Your task to perform on an android device: open app "Google Maps" Image 0: 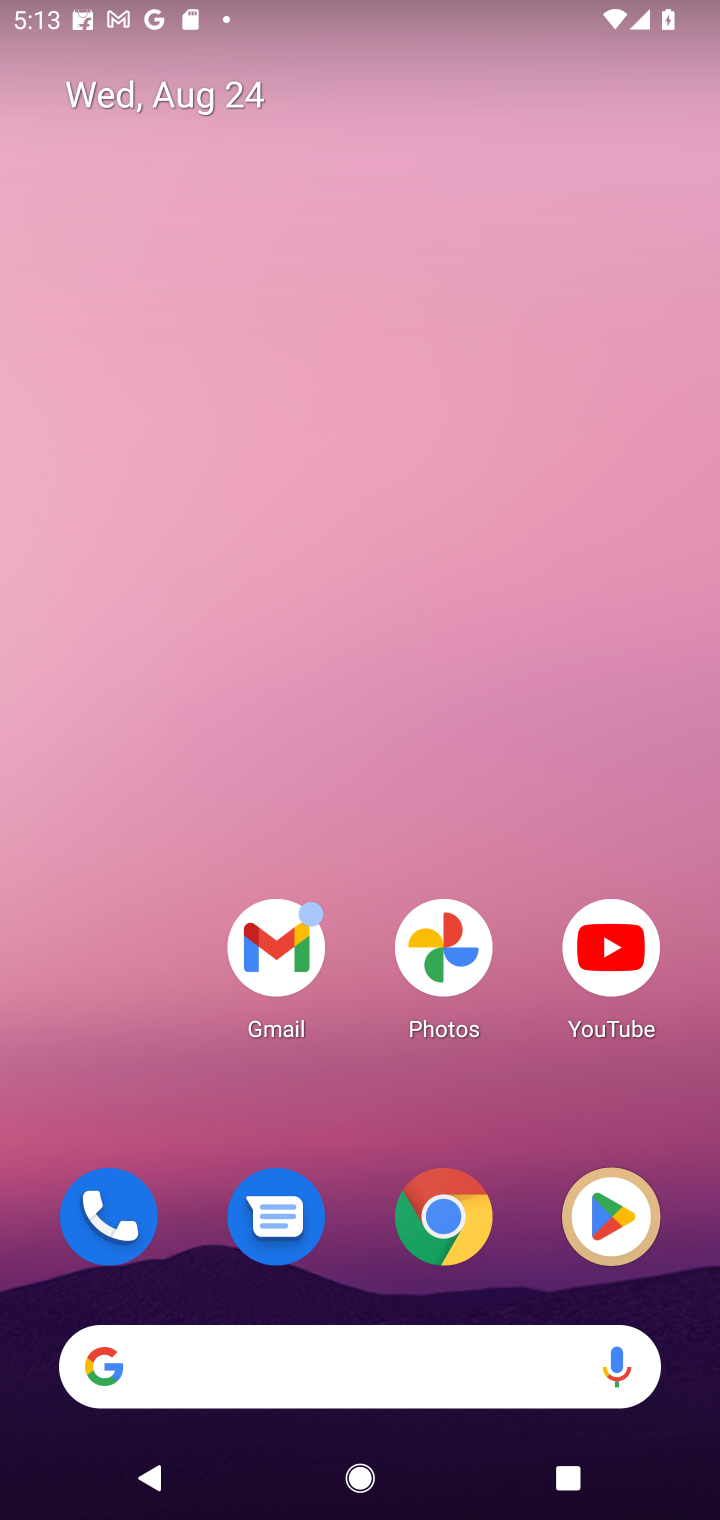
Step 0: click (618, 1266)
Your task to perform on an android device: open app "Google Maps" Image 1: 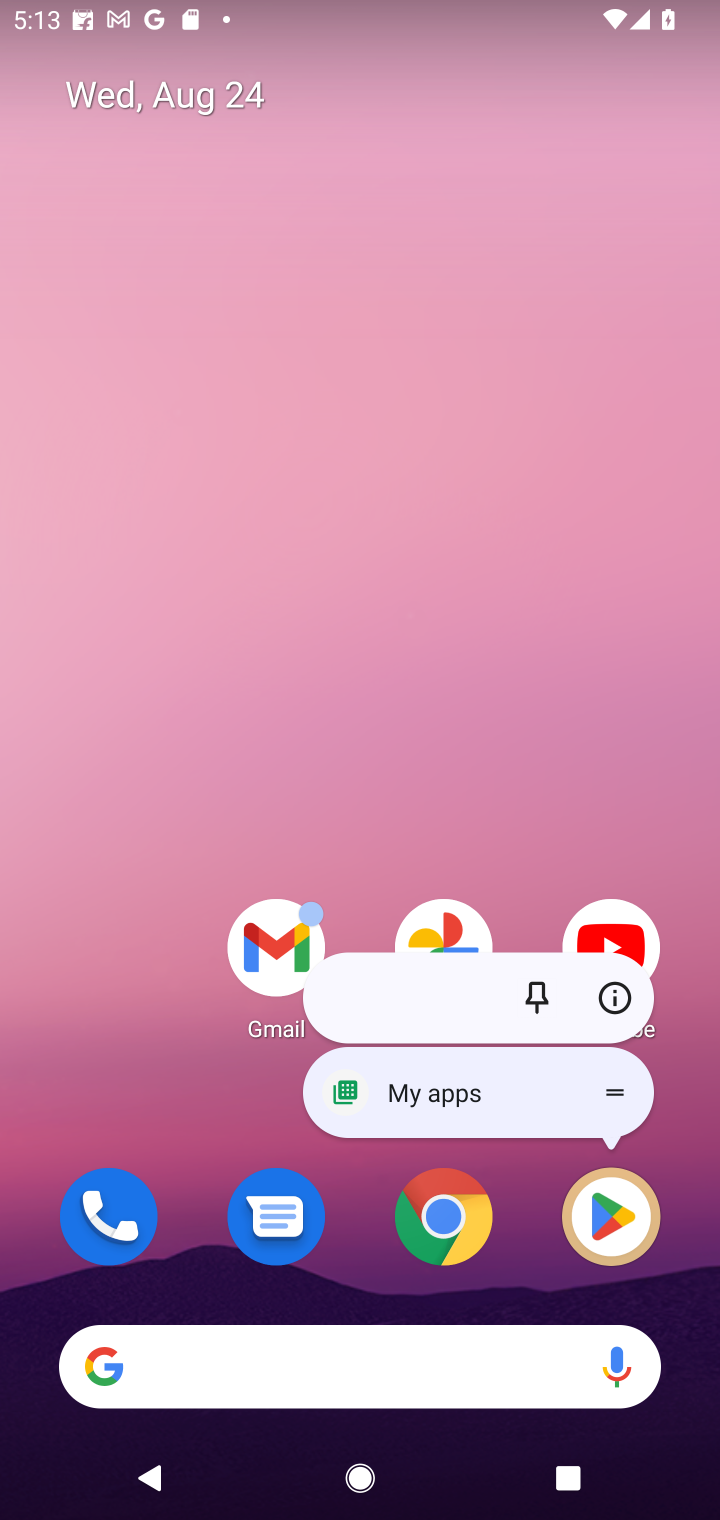
Step 1: click (602, 1198)
Your task to perform on an android device: open app "Google Maps" Image 2: 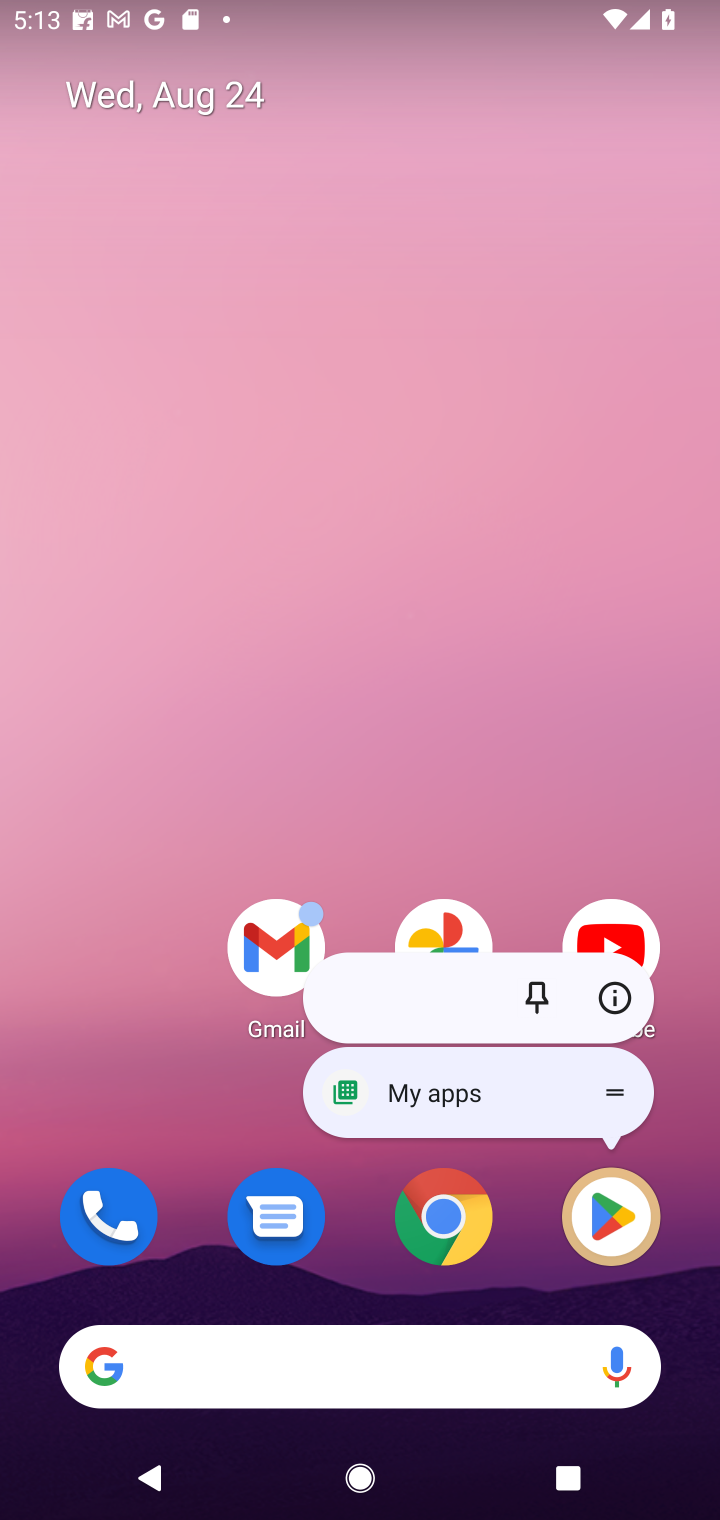
Step 2: click (619, 1218)
Your task to perform on an android device: open app "Google Maps" Image 3: 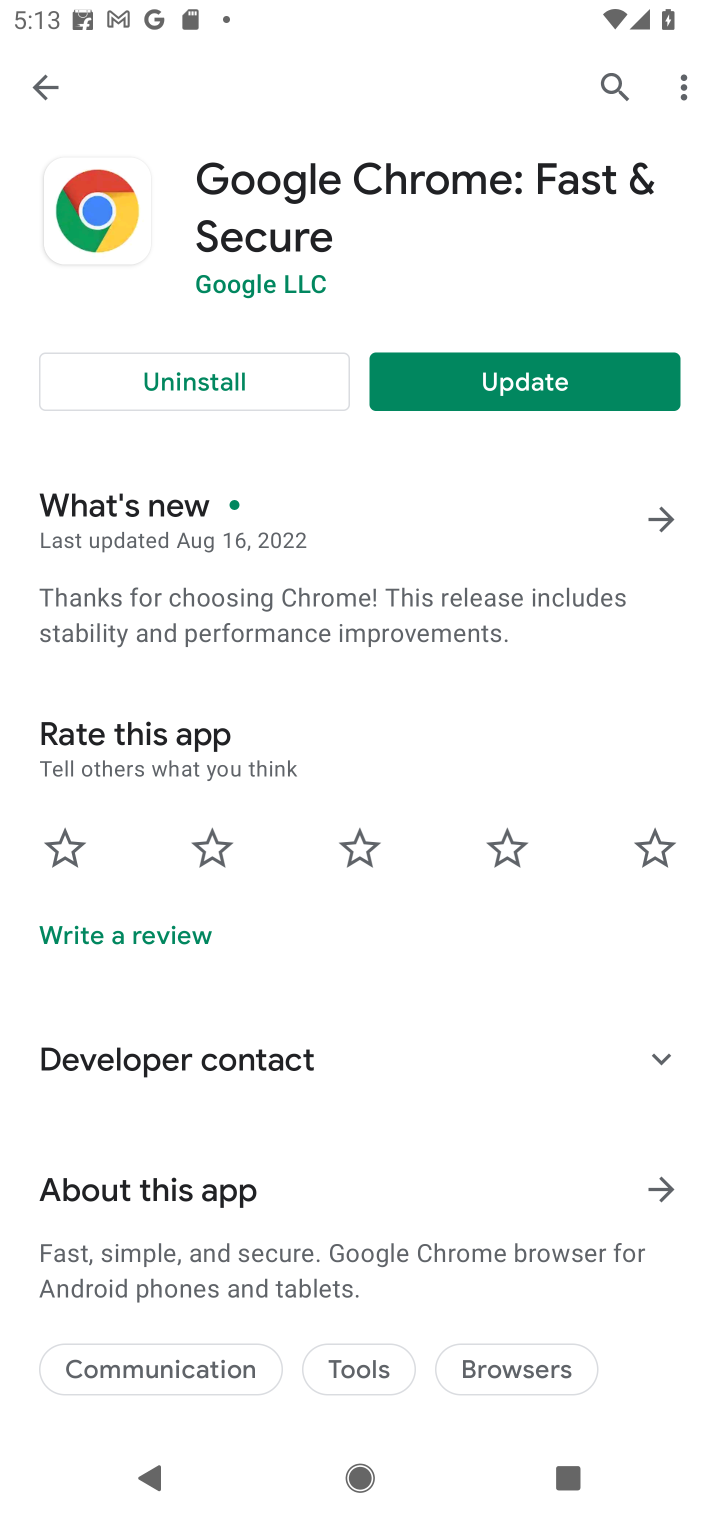
Step 3: click (611, 115)
Your task to perform on an android device: open app "Google Maps" Image 4: 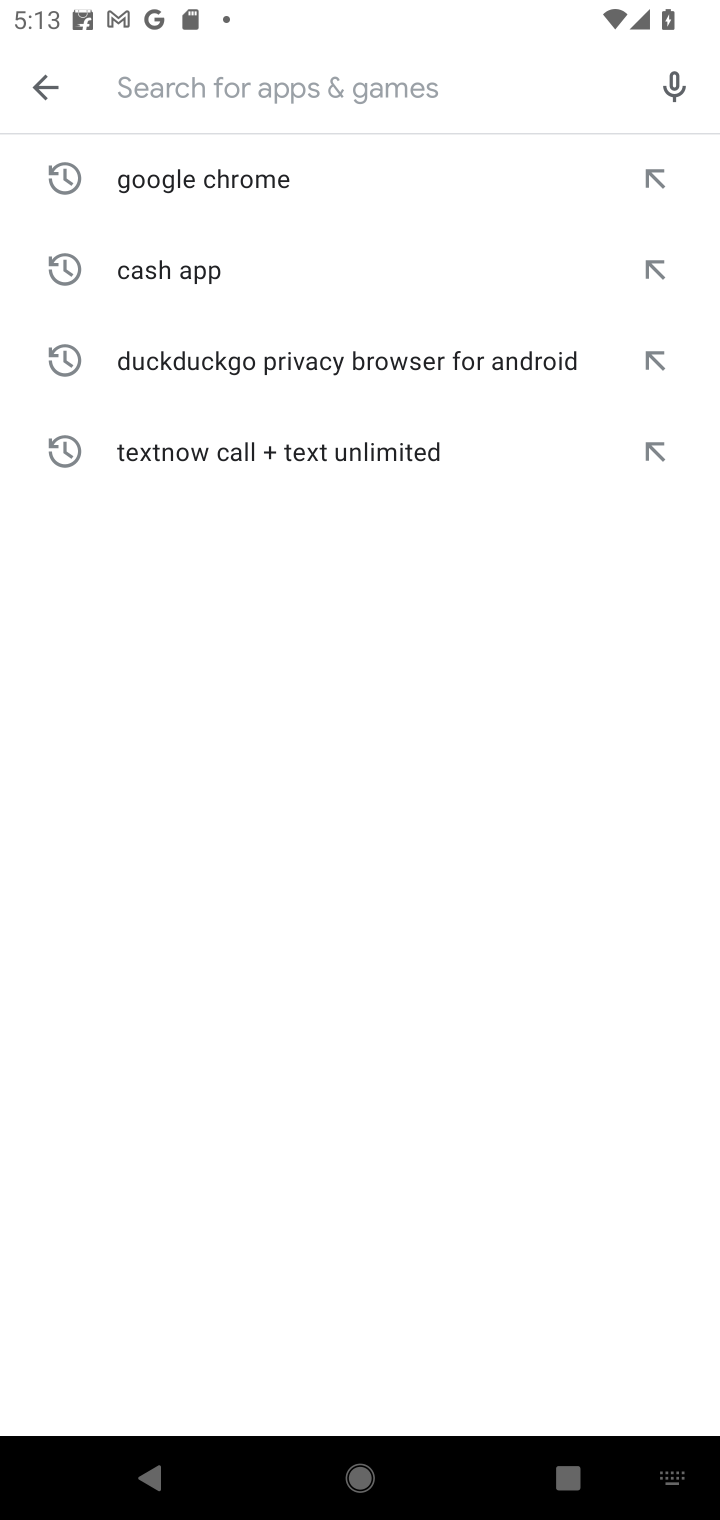
Step 4: type "Google Map"
Your task to perform on an android device: open app "Google Maps" Image 5: 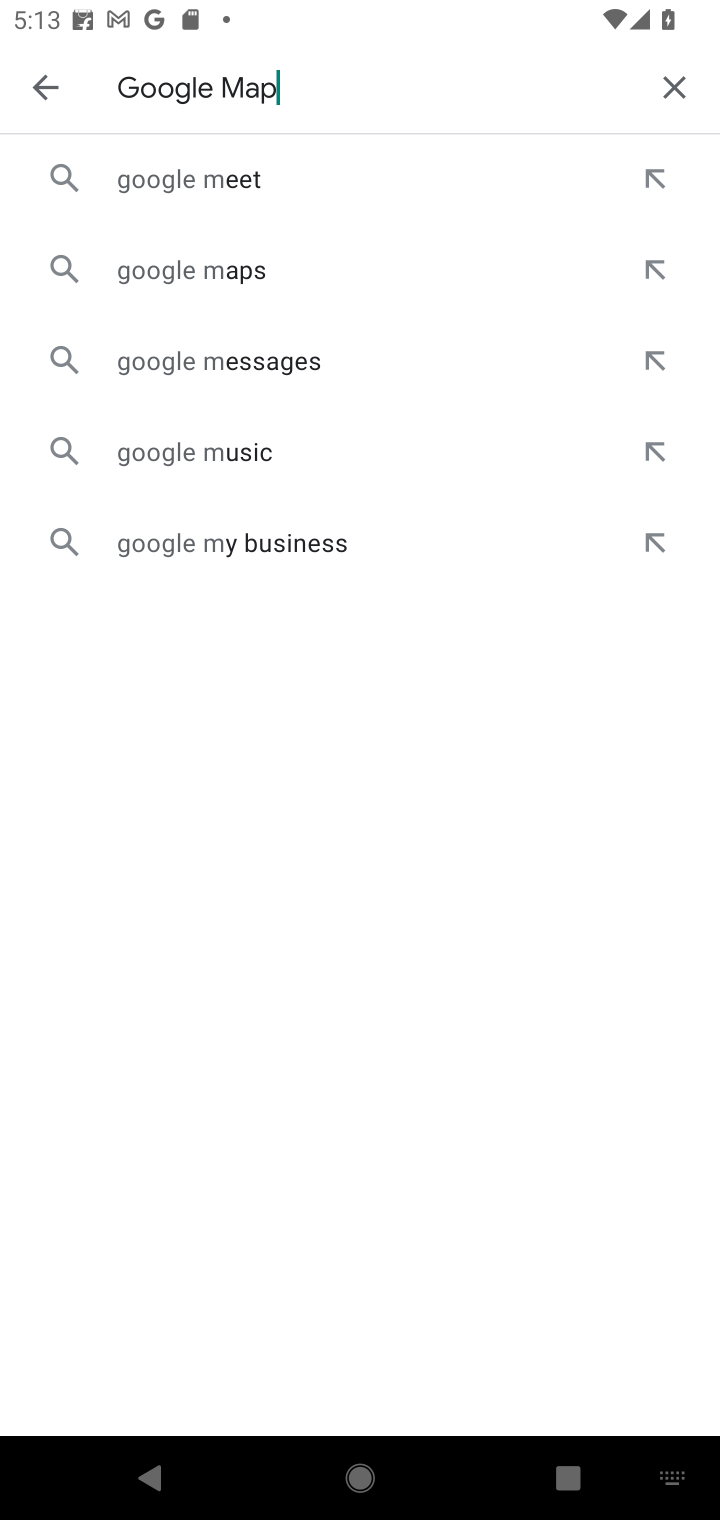
Step 5: type ""
Your task to perform on an android device: open app "Google Maps" Image 6: 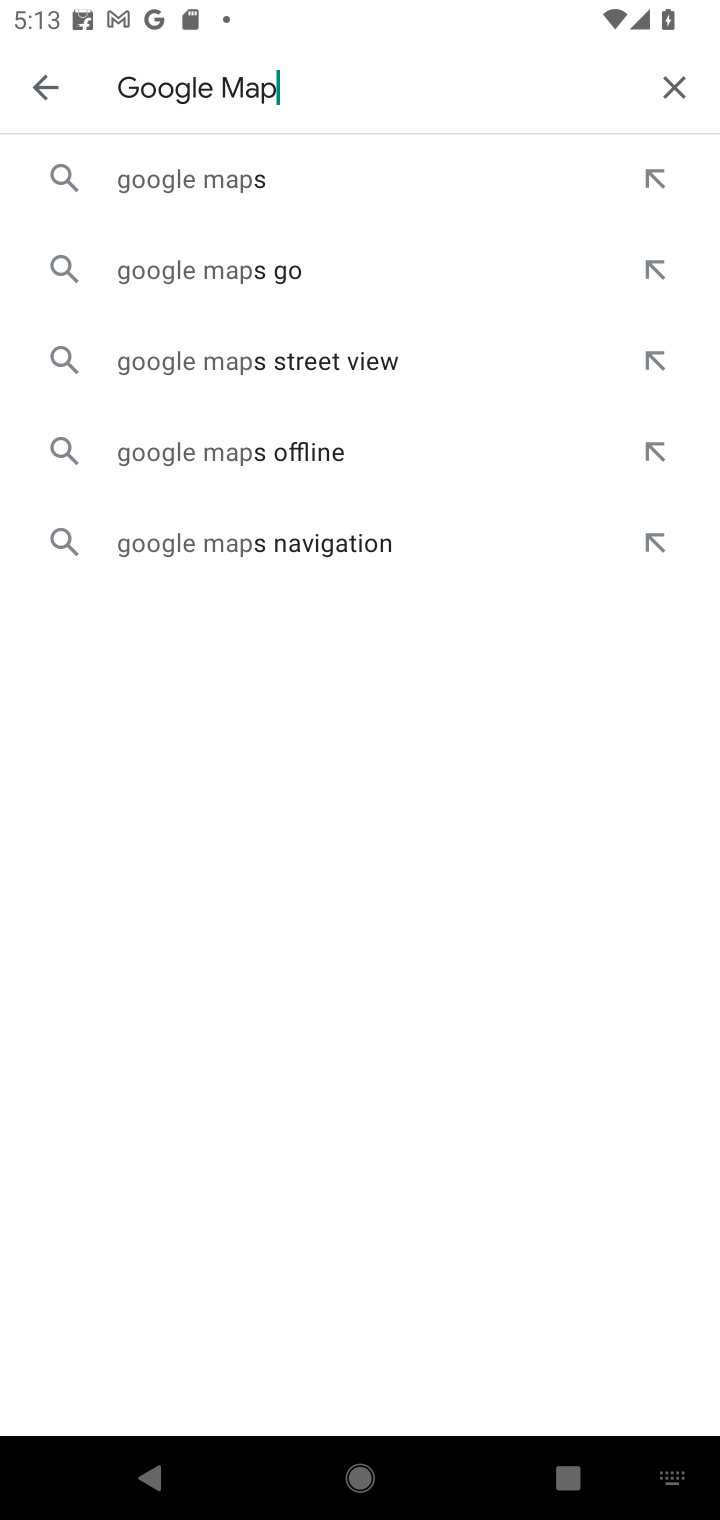
Step 6: click (291, 168)
Your task to perform on an android device: open app "Google Maps" Image 7: 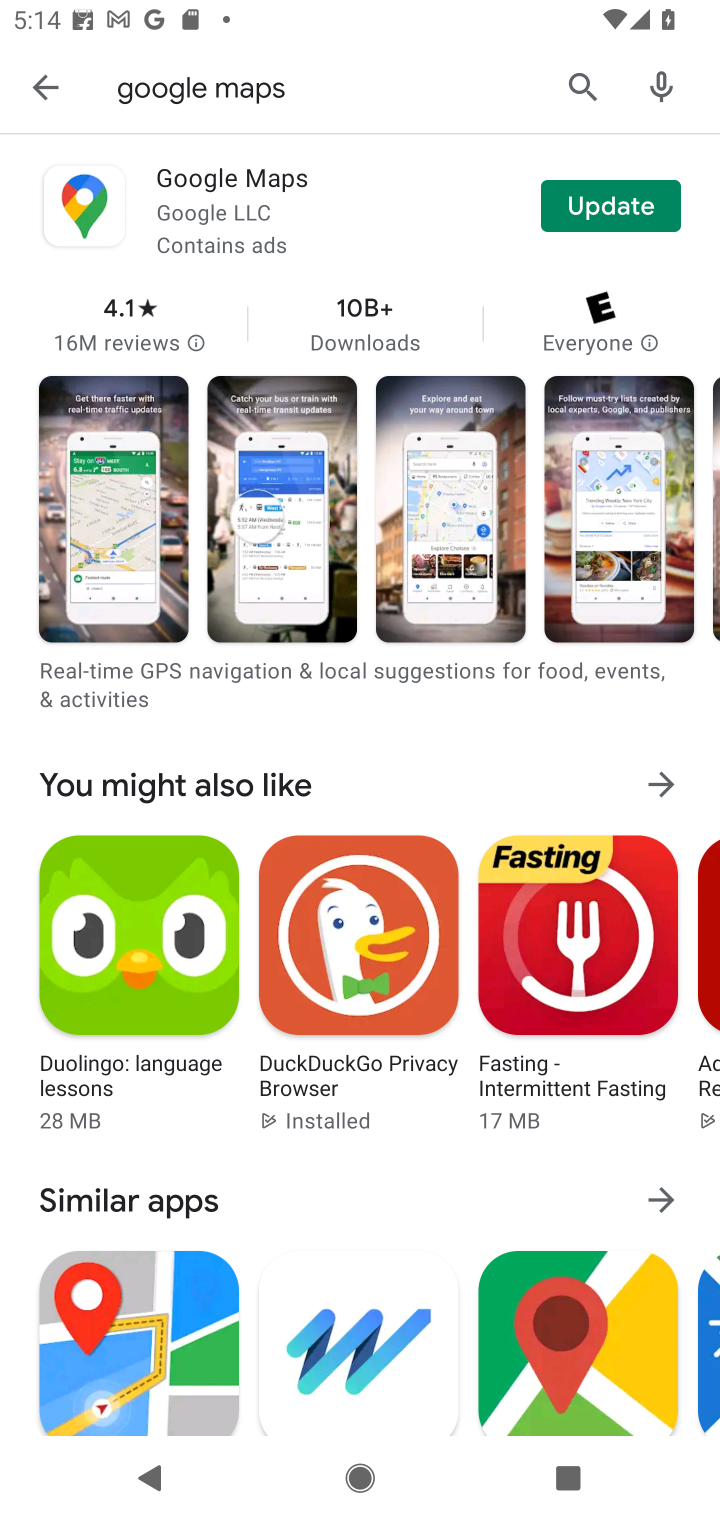
Step 7: task complete